Your task to perform on an android device: Open Google Maps and go to "Timeline" Image 0: 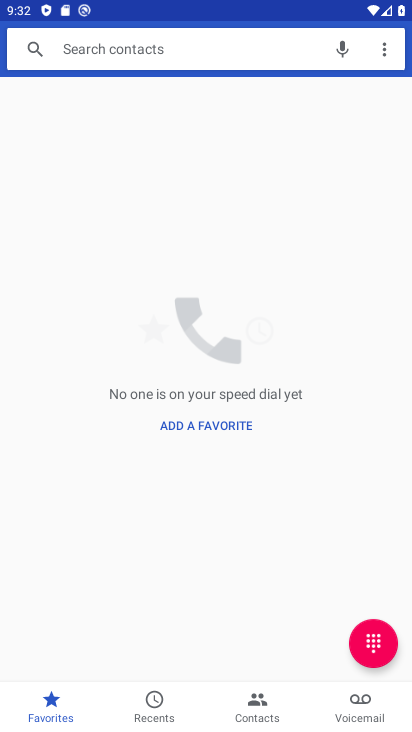
Step 0: press home button
Your task to perform on an android device: Open Google Maps and go to "Timeline" Image 1: 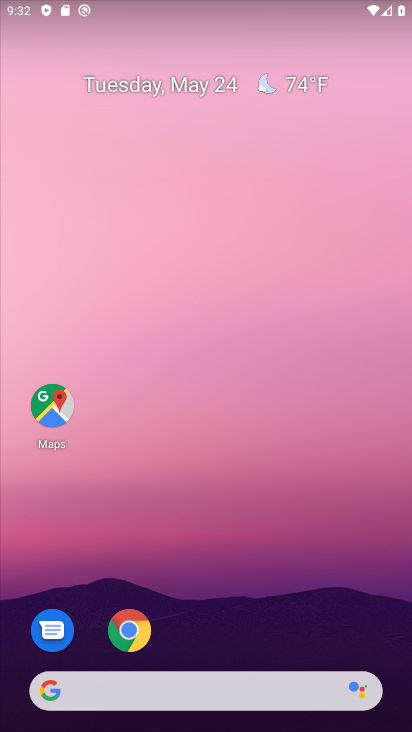
Step 1: drag from (296, 621) to (246, 363)
Your task to perform on an android device: Open Google Maps and go to "Timeline" Image 2: 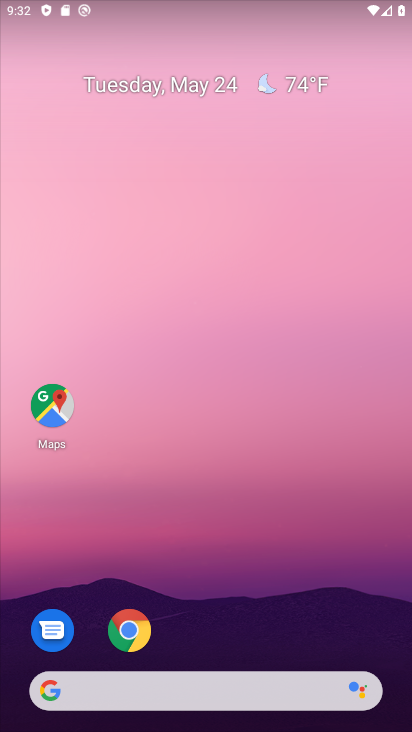
Step 2: click (31, 401)
Your task to perform on an android device: Open Google Maps and go to "Timeline" Image 3: 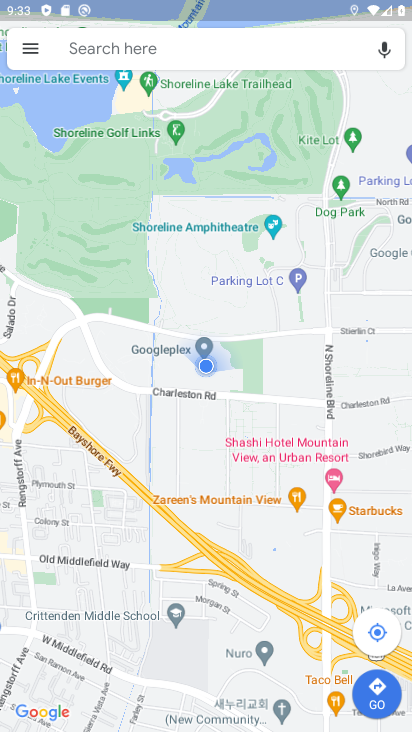
Step 3: click (33, 42)
Your task to perform on an android device: Open Google Maps and go to "Timeline" Image 4: 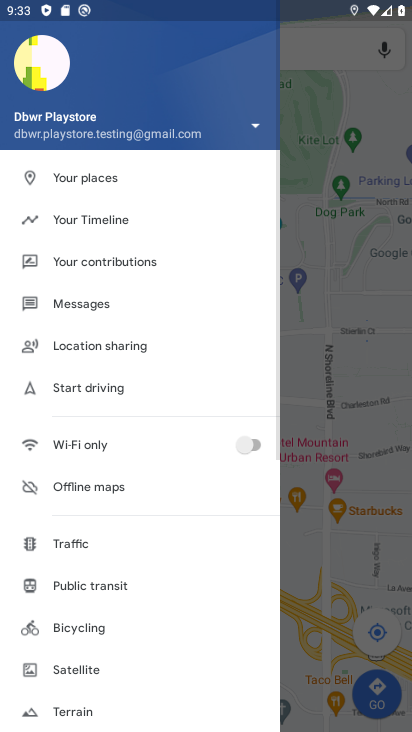
Step 4: click (99, 224)
Your task to perform on an android device: Open Google Maps and go to "Timeline" Image 5: 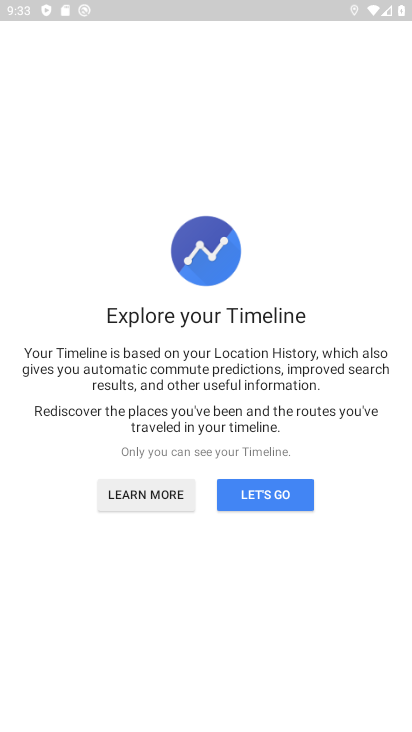
Step 5: task complete